Your task to perform on an android device: change the upload size in google photos Image 0: 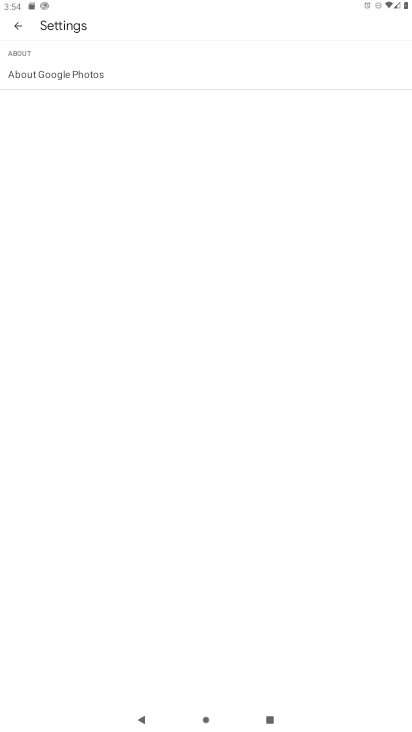
Step 0: press home button
Your task to perform on an android device: change the upload size in google photos Image 1: 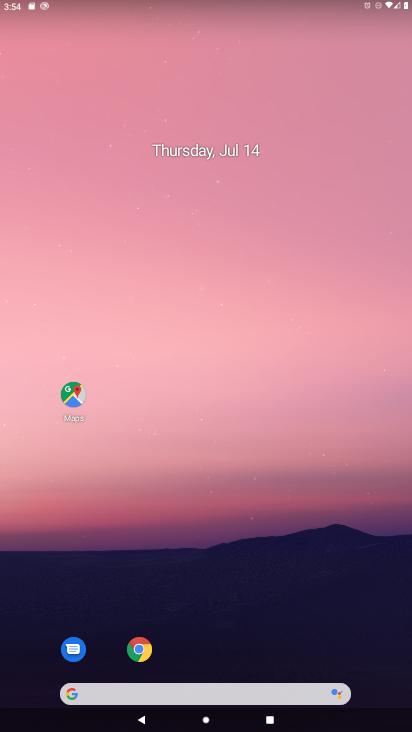
Step 1: drag from (188, 604) to (219, 90)
Your task to perform on an android device: change the upload size in google photos Image 2: 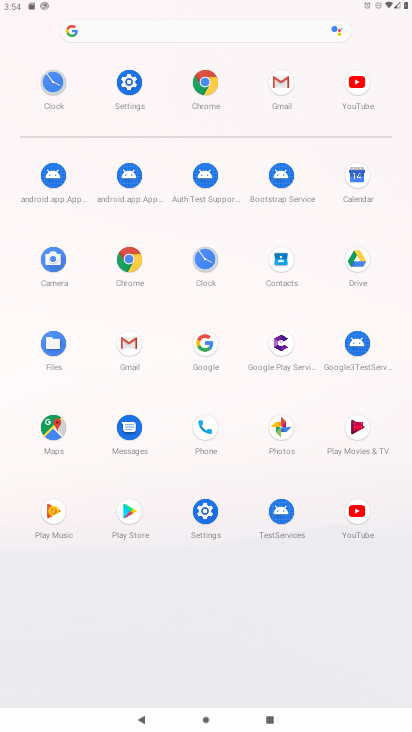
Step 2: click (284, 430)
Your task to perform on an android device: change the upload size in google photos Image 3: 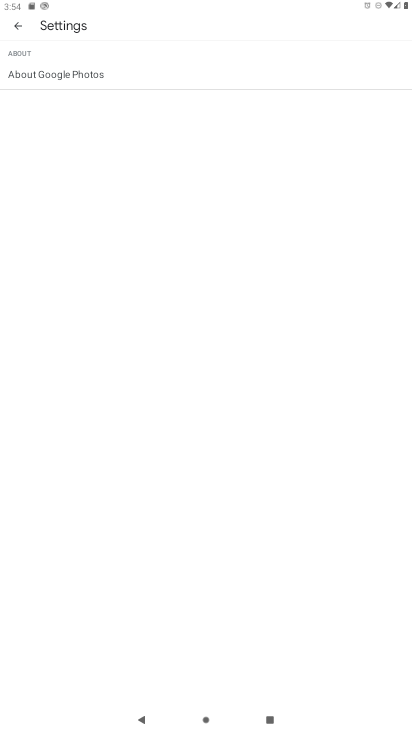
Step 3: click (16, 22)
Your task to perform on an android device: change the upload size in google photos Image 4: 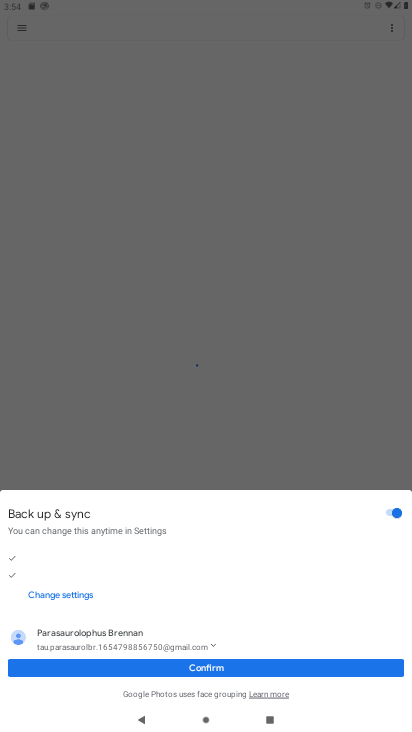
Step 4: click (20, 29)
Your task to perform on an android device: change the upload size in google photos Image 5: 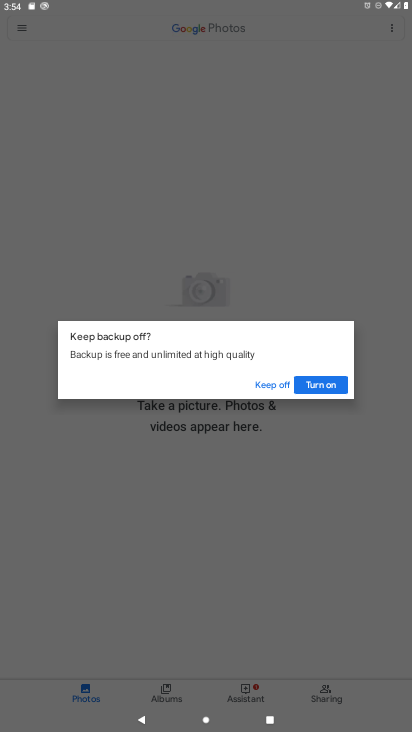
Step 5: click (328, 384)
Your task to perform on an android device: change the upload size in google photos Image 6: 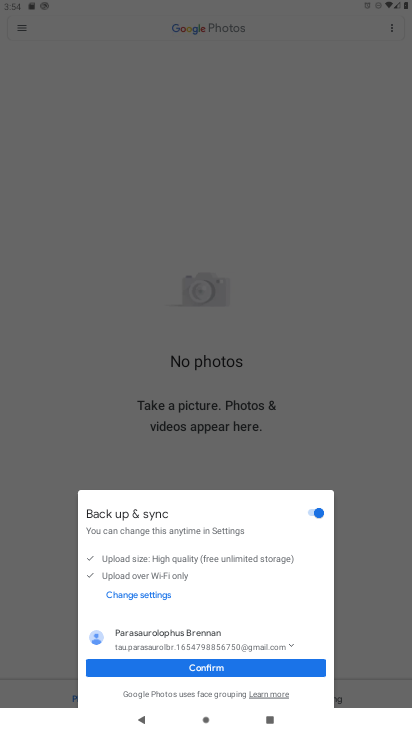
Step 6: click (229, 666)
Your task to perform on an android device: change the upload size in google photos Image 7: 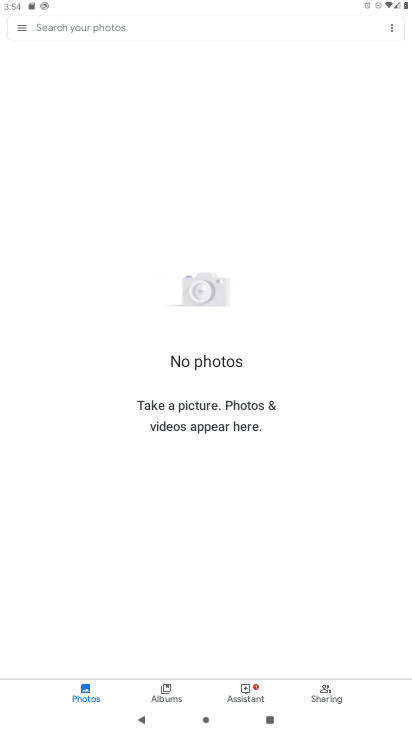
Step 7: click (18, 23)
Your task to perform on an android device: change the upload size in google photos Image 8: 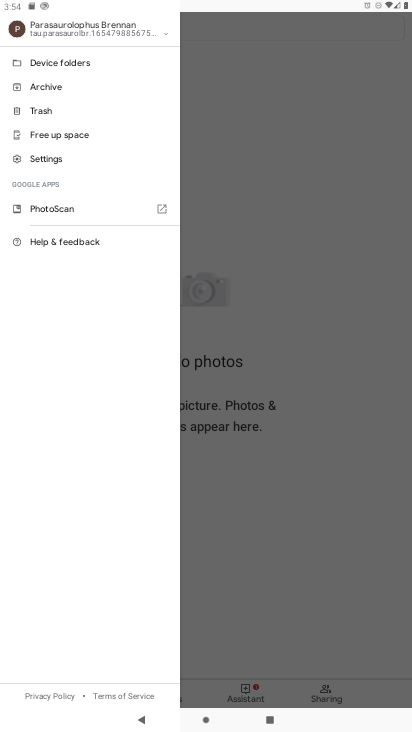
Step 8: click (50, 166)
Your task to perform on an android device: change the upload size in google photos Image 9: 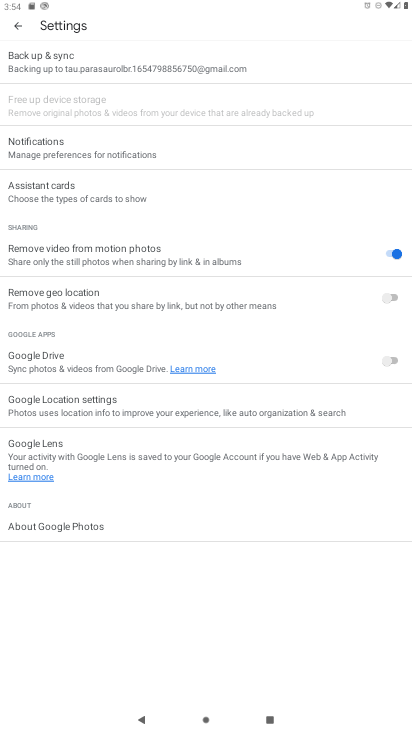
Step 9: click (117, 66)
Your task to perform on an android device: change the upload size in google photos Image 10: 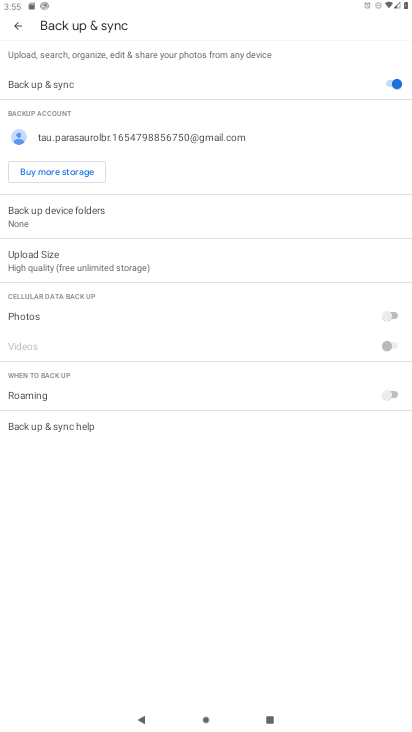
Step 10: click (117, 263)
Your task to perform on an android device: change the upload size in google photos Image 11: 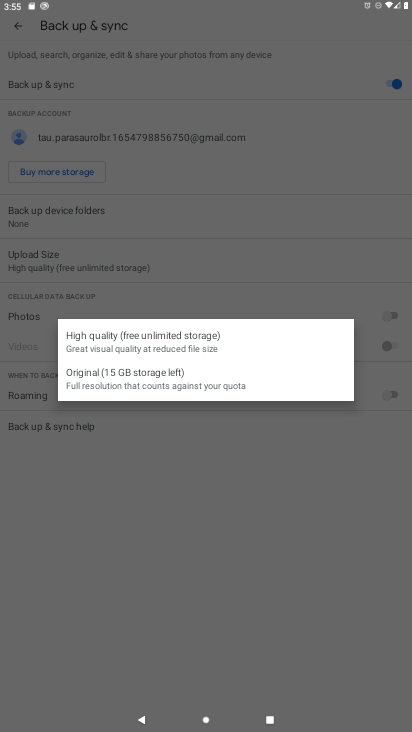
Step 11: click (176, 381)
Your task to perform on an android device: change the upload size in google photos Image 12: 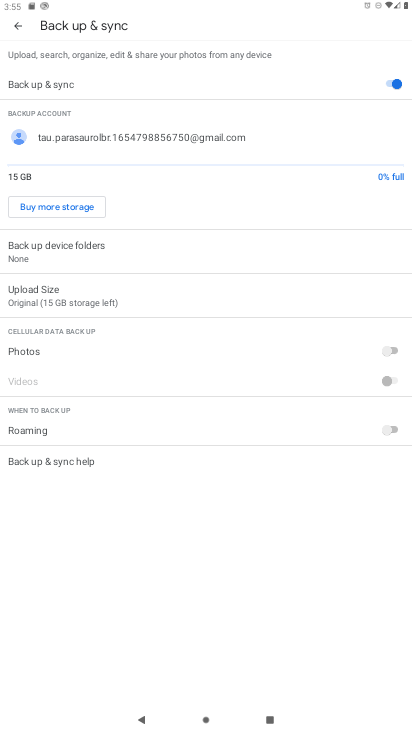
Step 12: task complete